Your task to perform on an android device: Open calendar and show me the first week of next month Image 0: 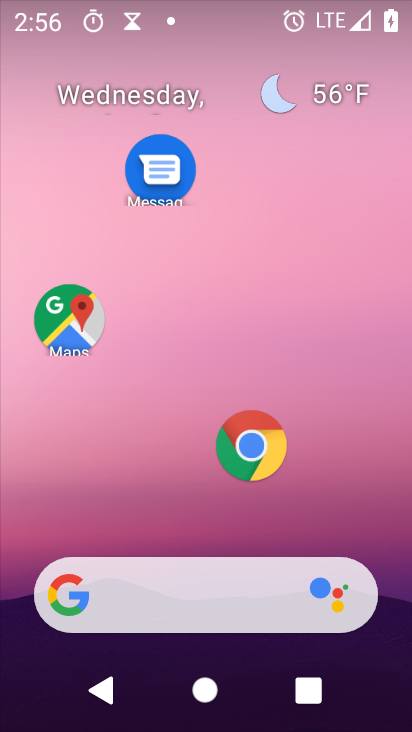
Step 0: drag from (237, 535) to (185, 29)
Your task to perform on an android device: Open calendar and show me the first week of next month Image 1: 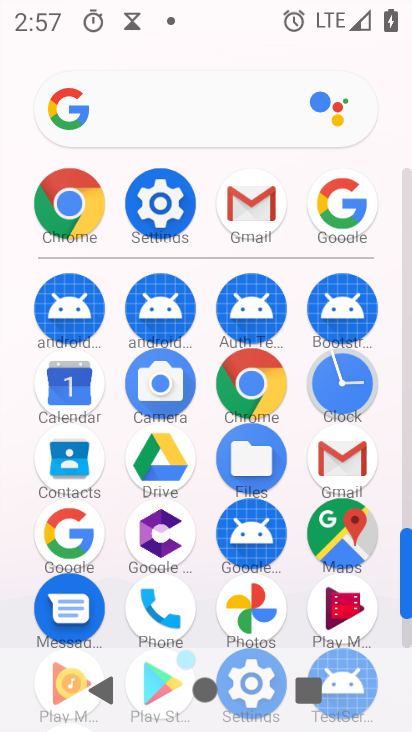
Step 1: click (65, 375)
Your task to perform on an android device: Open calendar and show me the first week of next month Image 2: 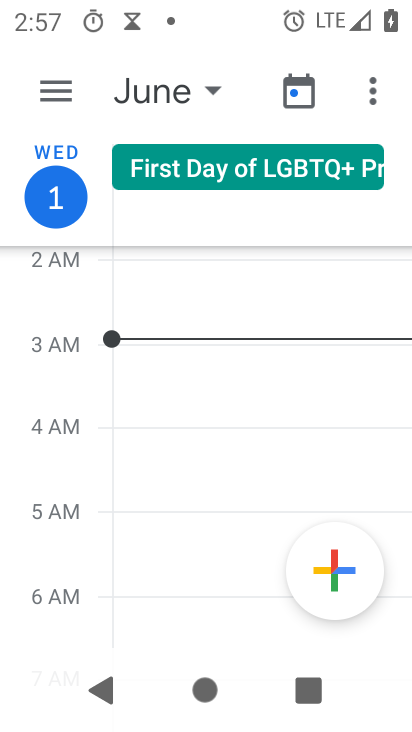
Step 2: click (156, 89)
Your task to perform on an android device: Open calendar and show me the first week of next month Image 3: 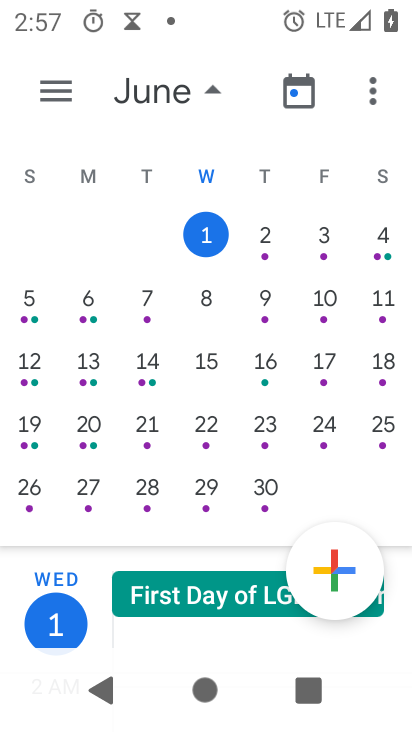
Step 3: drag from (335, 296) to (5, 390)
Your task to perform on an android device: Open calendar and show me the first week of next month Image 4: 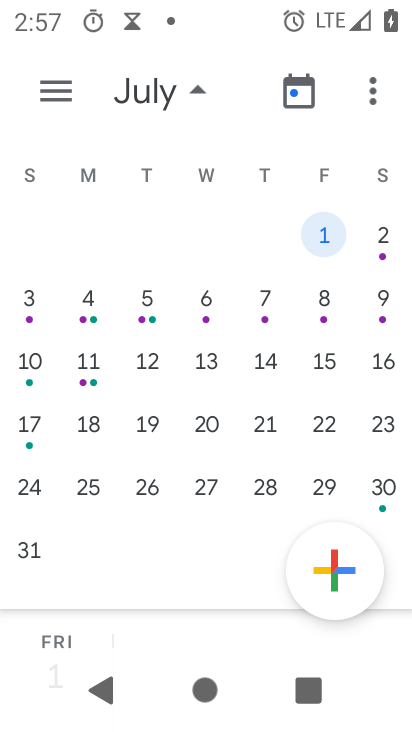
Step 4: click (338, 242)
Your task to perform on an android device: Open calendar and show me the first week of next month Image 5: 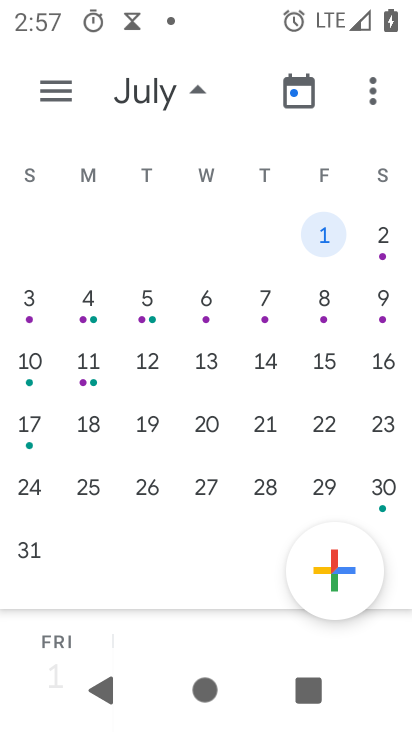
Step 5: click (173, 102)
Your task to perform on an android device: Open calendar and show me the first week of next month Image 6: 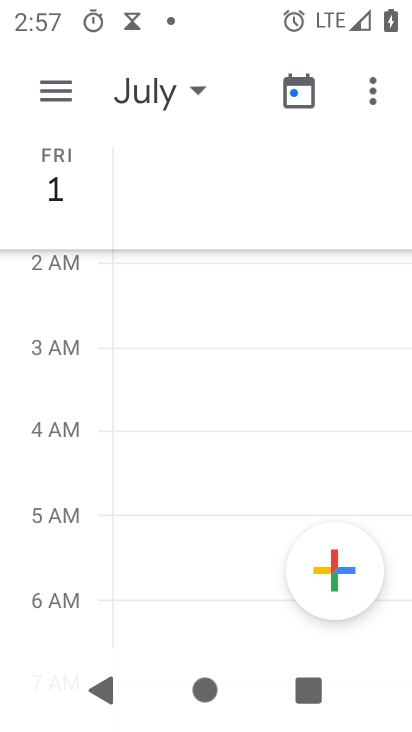
Step 6: click (53, 123)
Your task to perform on an android device: Open calendar and show me the first week of next month Image 7: 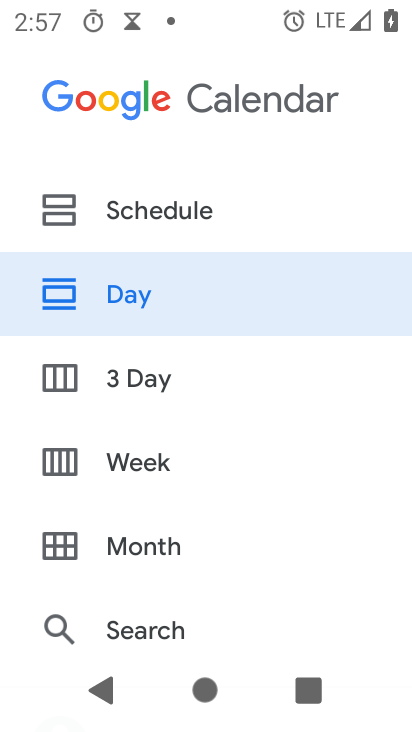
Step 7: click (139, 477)
Your task to perform on an android device: Open calendar and show me the first week of next month Image 8: 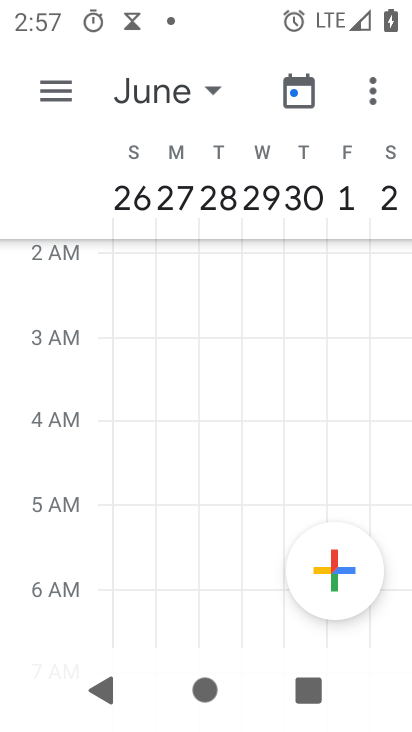
Step 8: task complete